Your task to perform on an android device: turn on data saver in the chrome app Image 0: 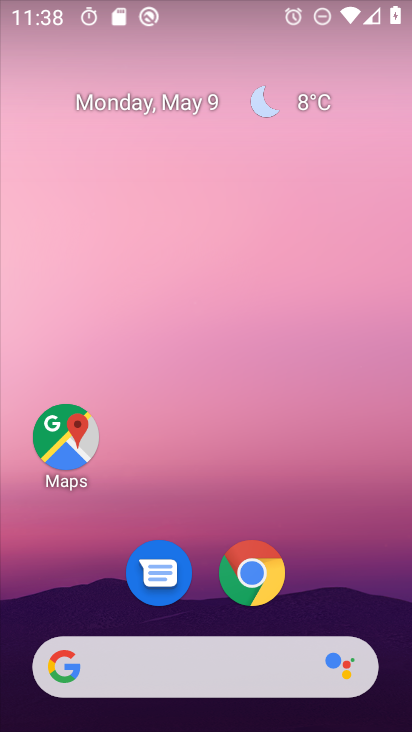
Step 0: click (253, 573)
Your task to perform on an android device: turn on data saver in the chrome app Image 1: 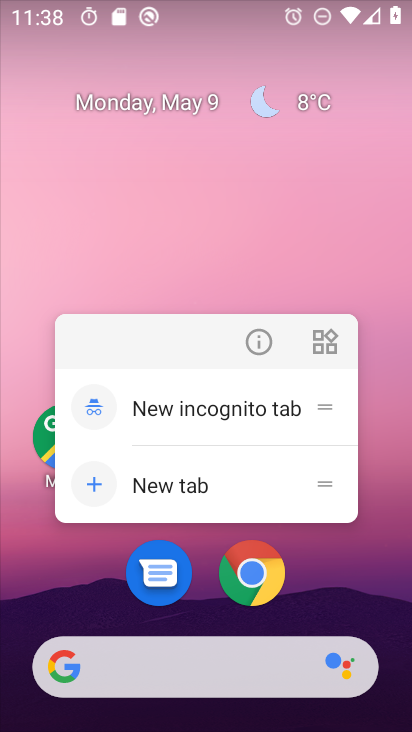
Step 1: click (250, 574)
Your task to perform on an android device: turn on data saver in the chrome app Image 2: 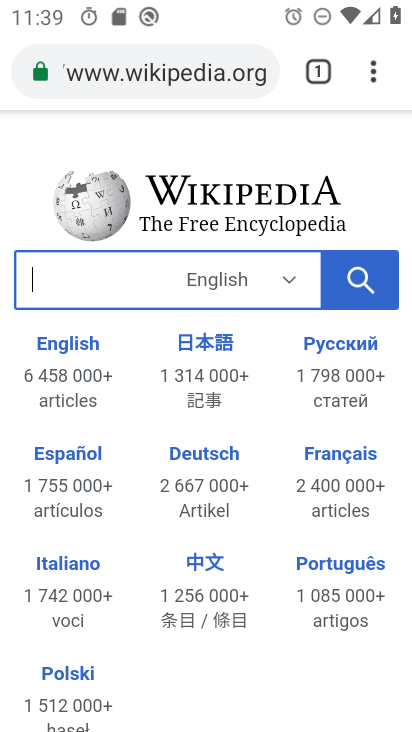
Step 2: drag from (378, 61) to (203, 568)
Your task to perform on an android device: turn on data saver in the chrome app Image 3: 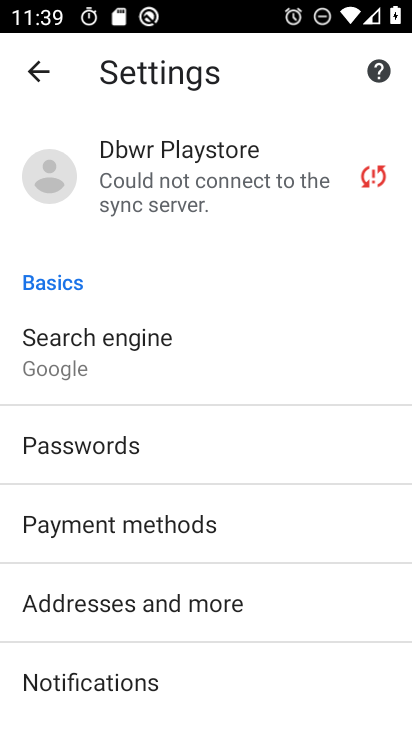
Step 3: drag from (310, 630) to (310, 285)
Your task to perform on an android device: turn on data saver in the chrome app Image 4: 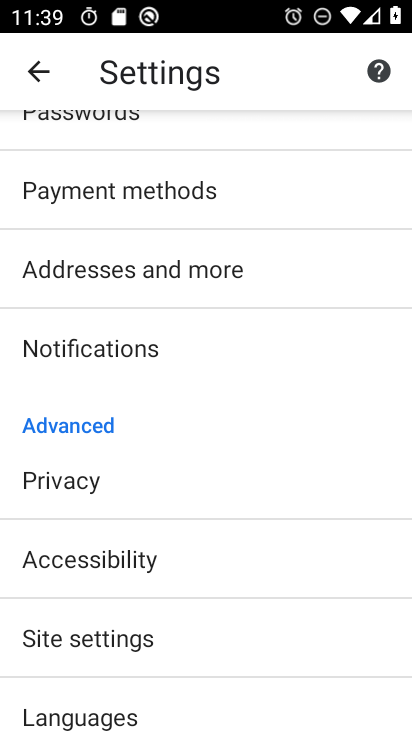
Step 4: drag from (189, 628) to (274, 289)
Your task to perform on an android device: turn on data saver in the chrome app Image 5: 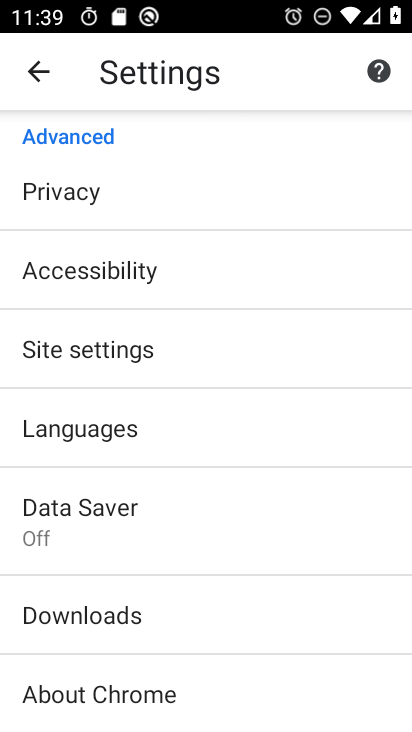
Step 5: click (96, 507)
Your task to perform on an android device: turn on data saver in the chrome app Image 6: 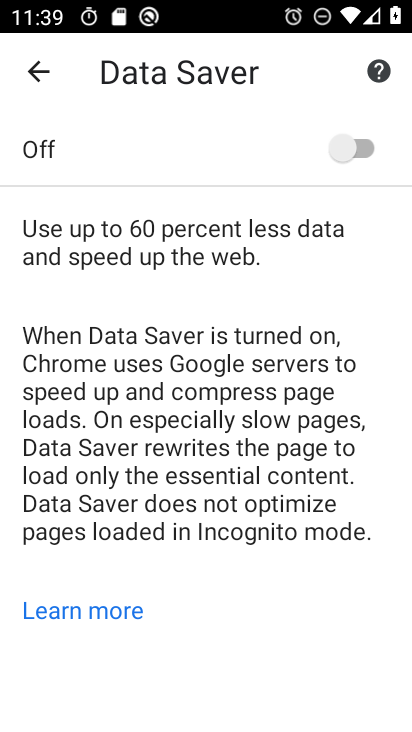
Step 6: click (358, 146)
Your task to perform on an android device: turn on data saver in the chrome app Image 7: 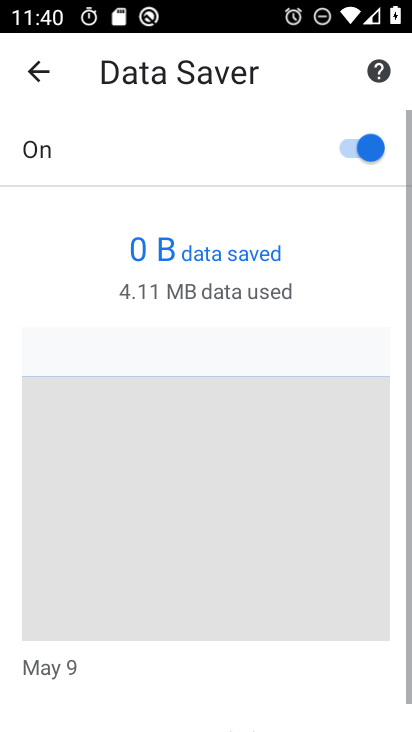
Step 7: task complete